Your task to perform on an android device: Go to display settings Image 0: 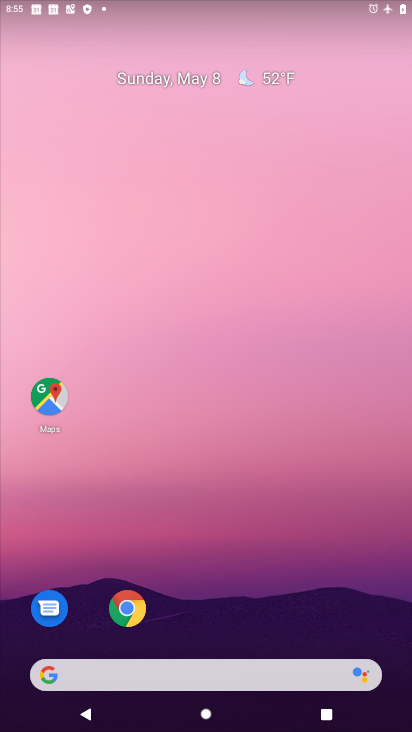
Step 0: drag from (273, 584) to (264, 0)
Your task to perform on an android device: Go to display settings Image 1: 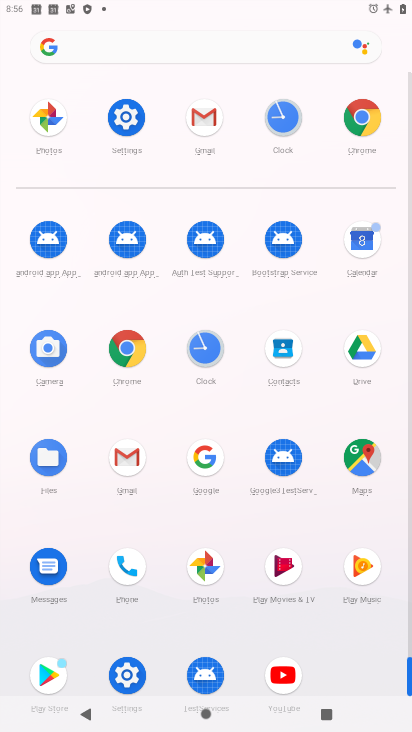
Step 1: drag from (8, 557) to (9, 247)
Your task to perform on an android device: Go to display settings Image 2: 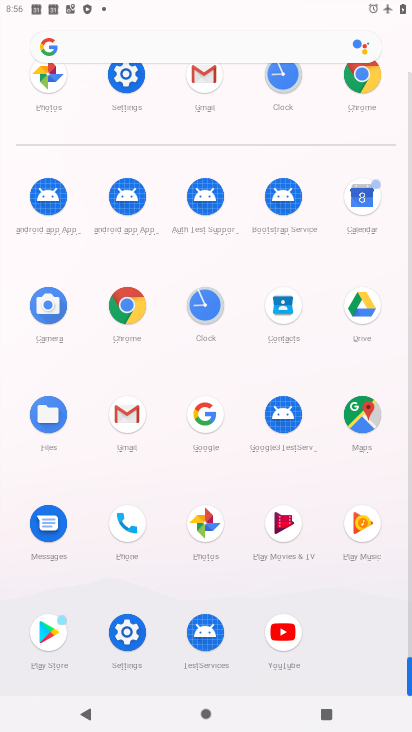
Step 2: click (126, 629)
Your task to perform on an android device: Go to display settings Image 3: 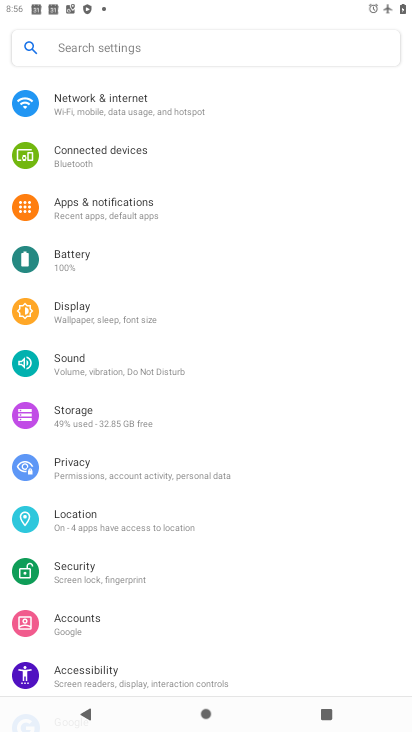
Step 3: click (106, 322)
Your task to perform on an android device: Go to display settings Image 4: 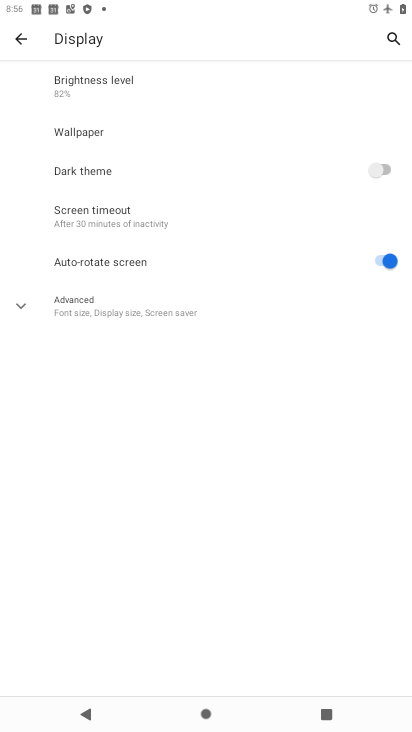
Step 4: click (14, 309)
Your task to perform on an android device: Go to display settings Image 5: 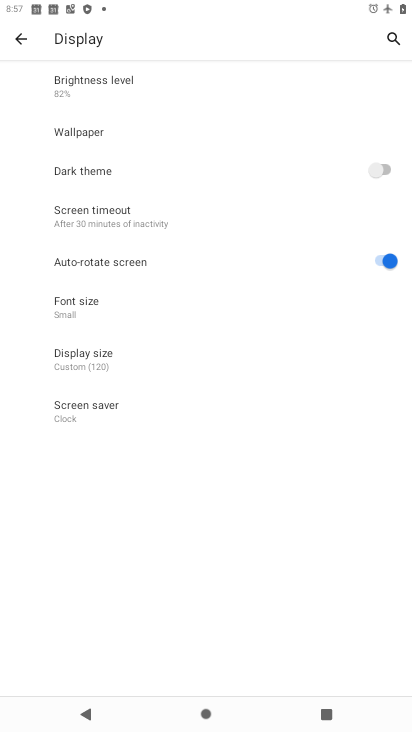
Step 5: task complete